Your task to perform on an android device: turn off location Image 0: 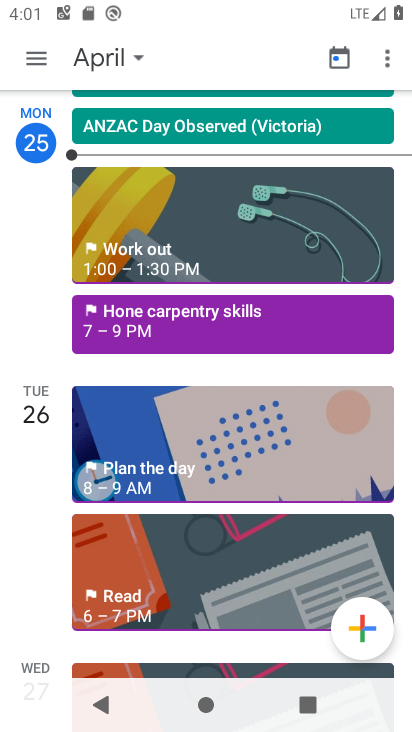
Step 0: press home button
Your task to perform on an android device: turn off location Image 1: 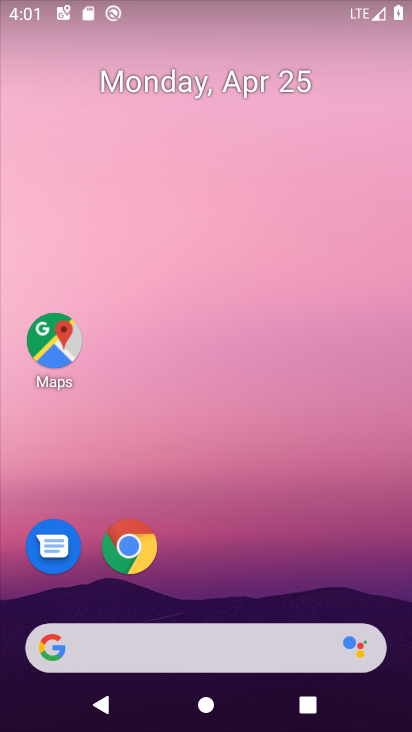
Step 1: drag from (226, 589) to (248, 32)
Your task to perform on an android device: turn off location Image 2: 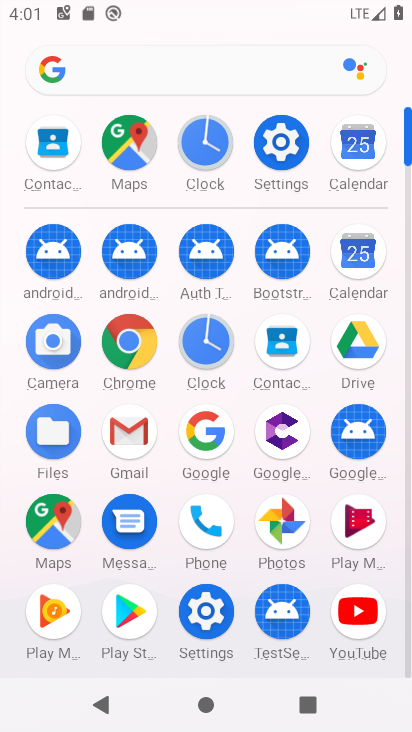
Step 2: click (288, 138)
Your task to perform on an android device: turn off location Image 3: 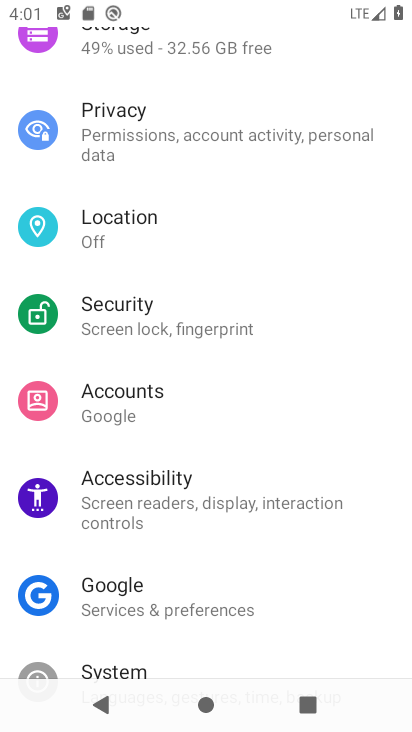
Step 3: click (142, 219)
Your task to perform on an android device: turn off location Image 4: 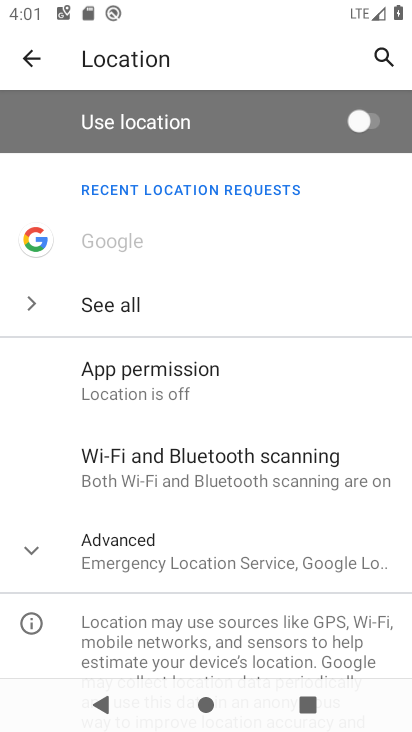
Step 4: task complete